Your task to perform on an android device: Open Google Chrome and click the shortcut for Amazon.com Image 0: 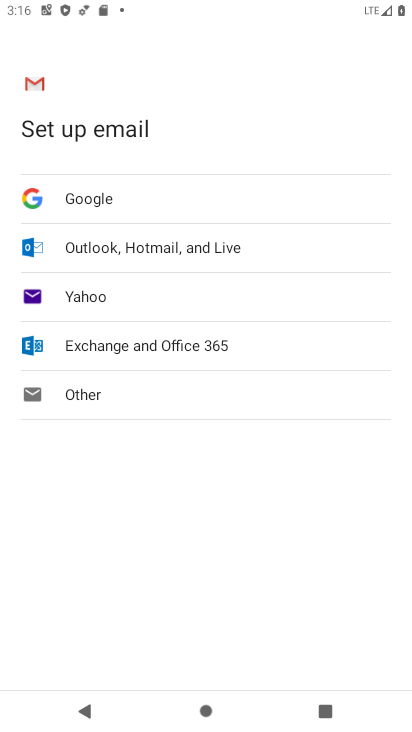
Step 0: press back button
Your task to perform on an android device: Open Google Chrome and click the shortcut for Amazon.com Image 1: 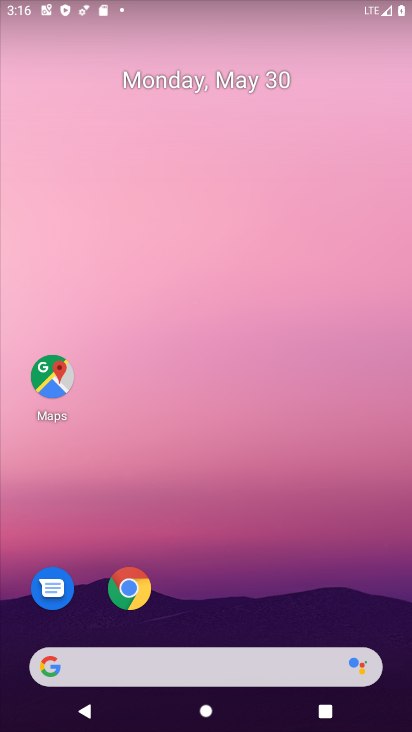
Step 1: drag from (310, 567) to (180, 1)
Your task to perform on an android device: Open Google Chrome and click the shortcut for Amazon.com Image 2: 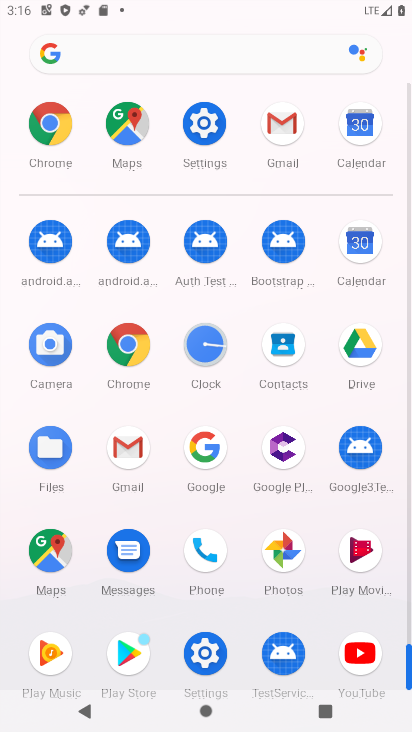
Step 2: drag from (4, 554) to (17, 244)
Your task to perform on an android device: Open Google Chrome and click the shortcut for Amazon.com Image 3: 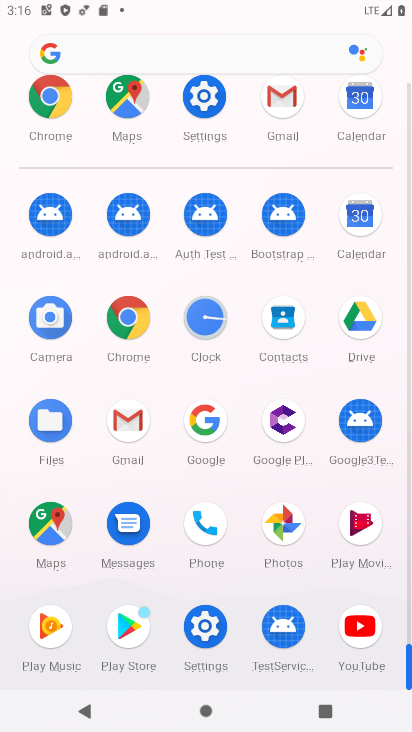
Step 3: click (126, 315)
Your task to perform on an android device: Open Google Chrome and click the shortcut for Amazon.com Image 4: 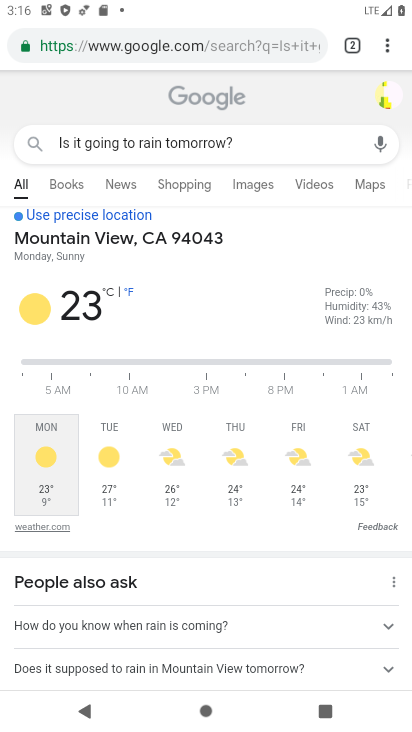
Step 4: click (192, 44)
Your task to perform on an android device: Open Google Chrome and click the shortcut for Amazon.com Image 5: 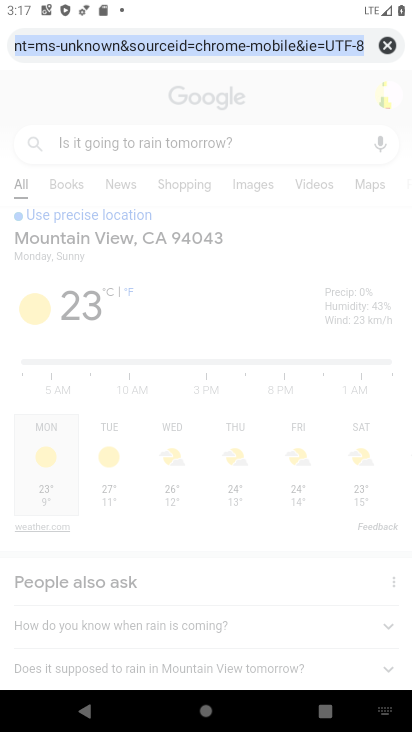
Step 5: click (381, 40)
Your task to perform on an android device: Open Google Chrome and click the shortcut for Amazon.com Image 6: 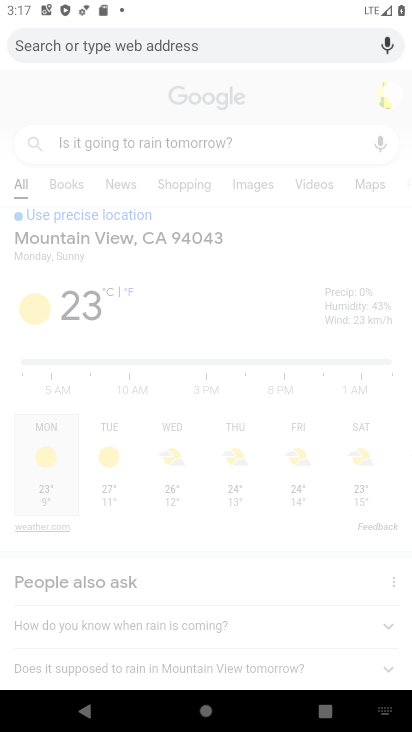
Step 6: type "Amazon.com"
Your task to perform on an android device: Open Google Chrome and click the shortcut for Amazon.com Image 7: 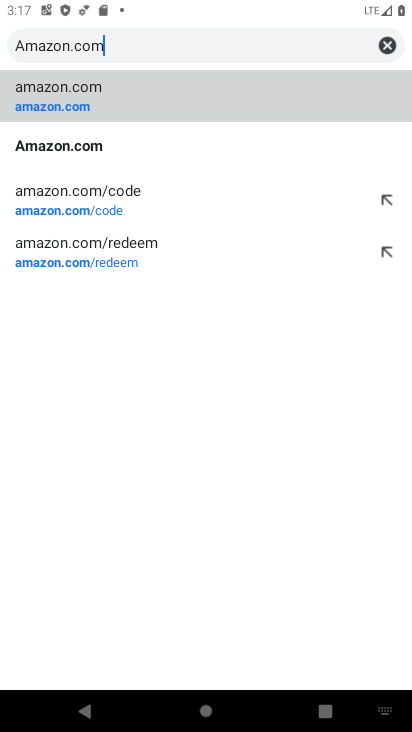
Step 7: click (64, 95)
Your task to perform on an android device: Open Google Chrome and click the shortcut for Amazon.com Image 8: 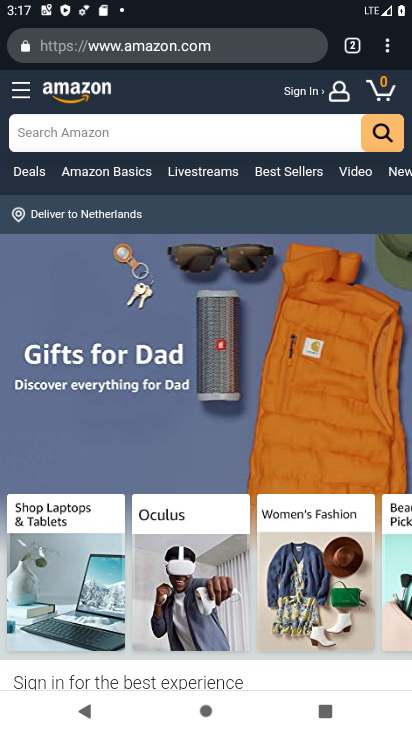
Step 8: task complete